Your task to perform on an android device: Open Yahoo.com Image 0: 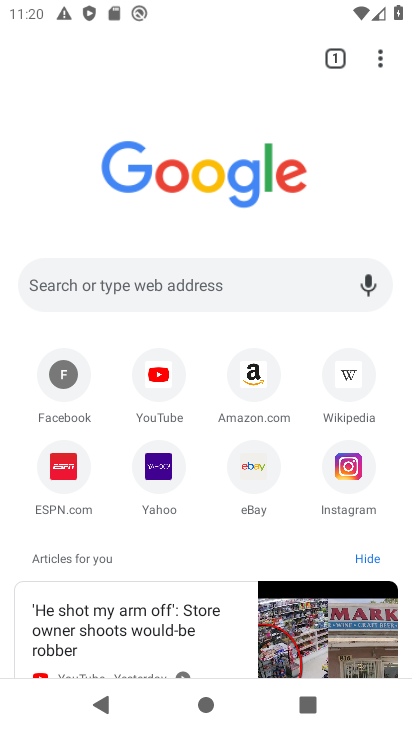
Step 0: click (173, 479)
Your task to perform on an android device: Open Yahoo.com Image 1: 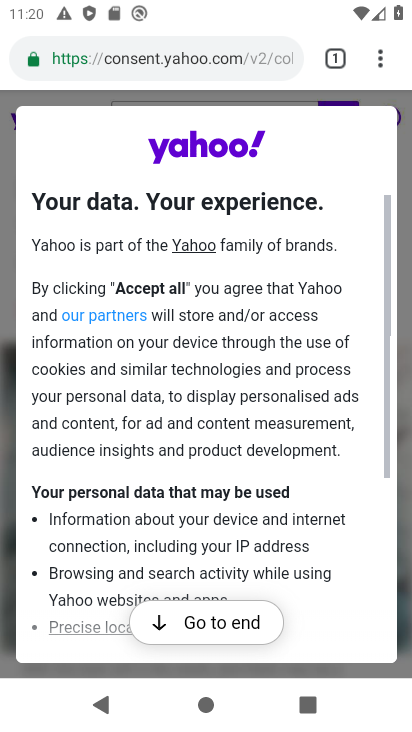
Step 1: task complete